Your task to perform on an android device: Open ESPN.com Image 0: 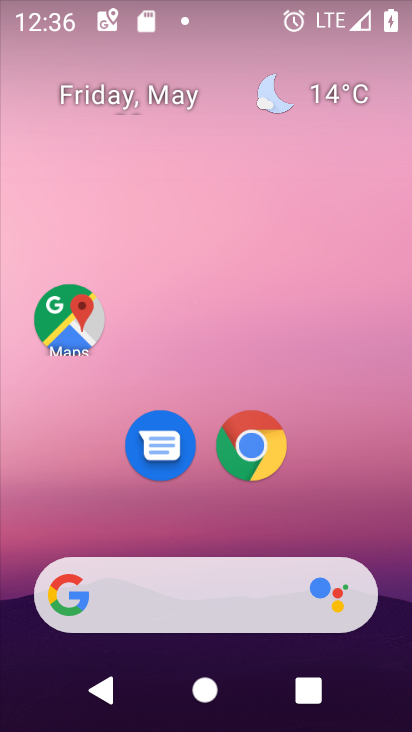
Step 0: click (236, 436)
Your task to perform on an android device: Open ESPN.com Image 1: 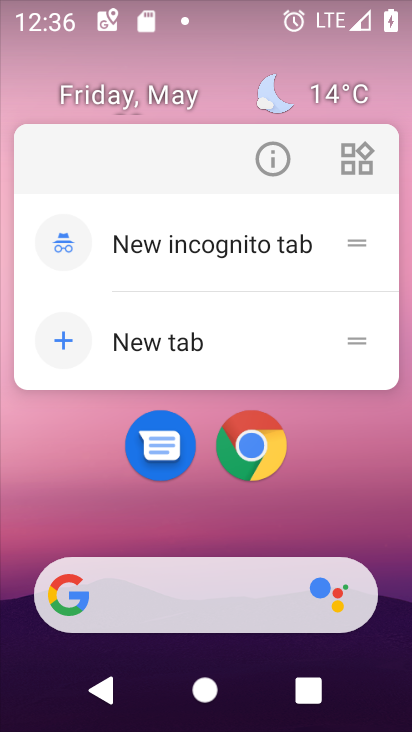
Step 1: click (254, 443)
Your task to perform on an android device: Open ESPN.com Image 2: 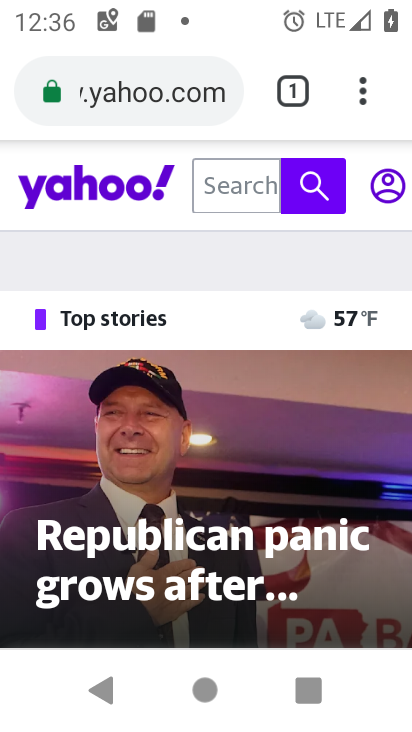
Step 2: click (289, 93)
Your task to perform on an android device: Open ESPN.com Image 3: 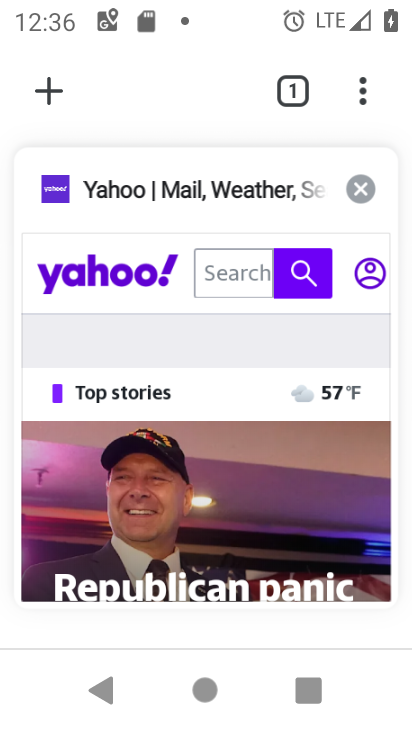
Step 3: click (360, 179)
Your task to perform on an android device: Open ESPN.com Image 4: 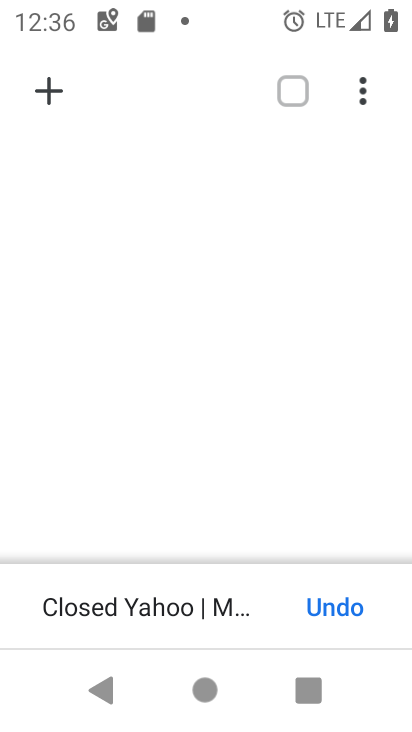
Step 4: click (48, 86)
Your task to perform on an android device: Open ESPN.com Image 5: 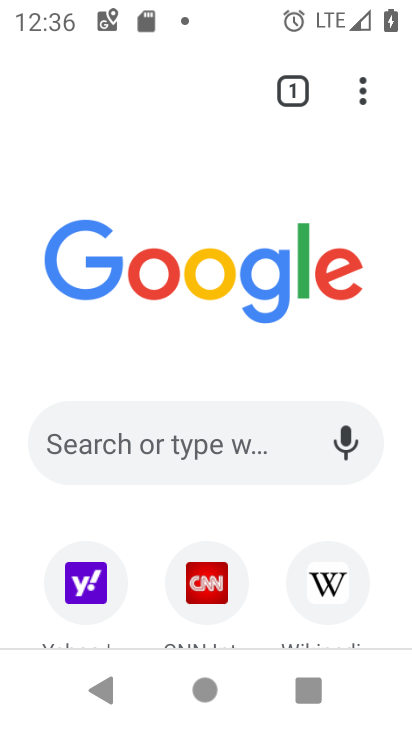
Step 5: drag from (0, 571) to (262, 127)
Your task to perform on an android device: Open ESPN.com Image 6: 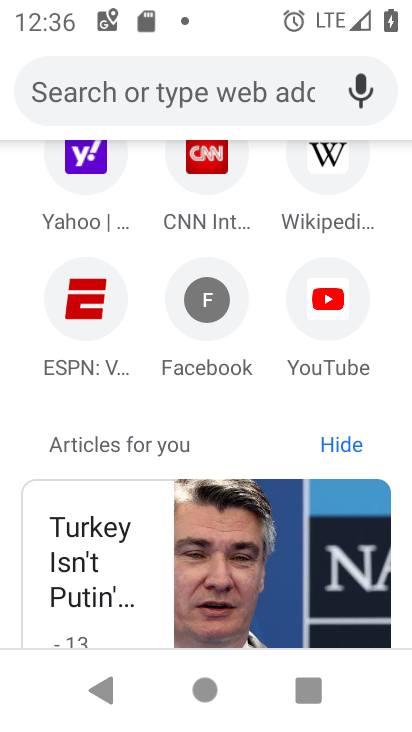
Step 6: click (75, 304)
Your task to perform on an android device: Open ESPN.com Image 7: 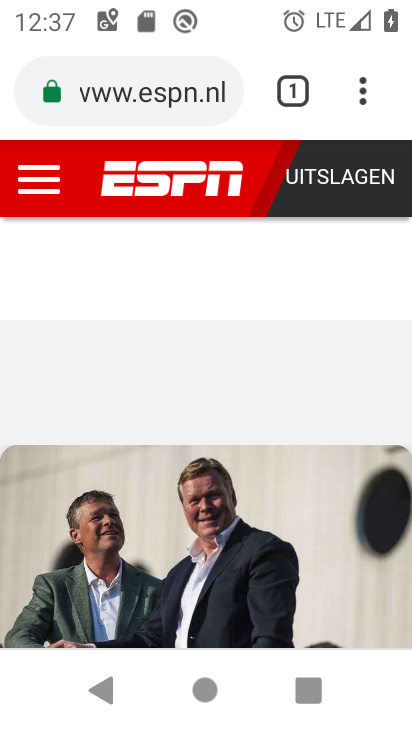
Step 7: task complete